Your task to perform on an android device: Open battery settings Image 0: 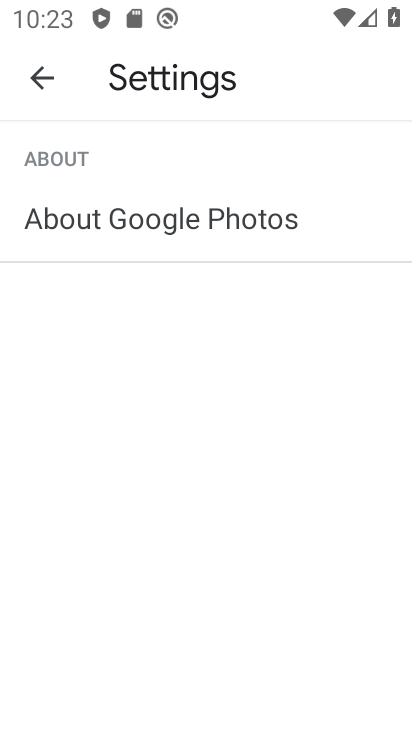
Step 0: press home button
Your task to perform on an android device: Open battery settings Image 1: 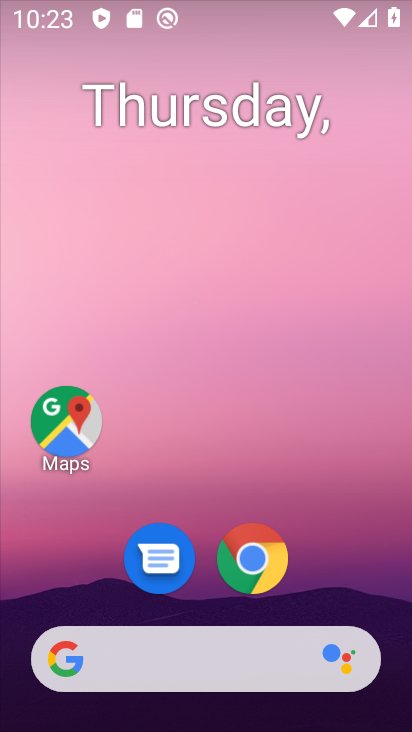
Step 1: drag from (328, 559) to (374, 102)
Your task to perform on an android device: Open battery settings Image 2: 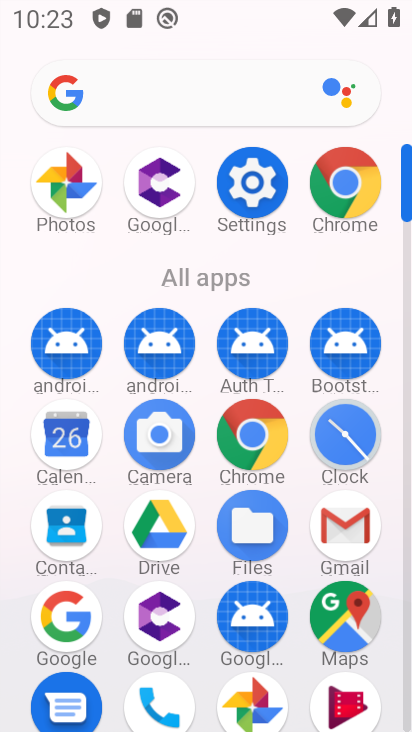
Step 2: click (258, 186)
Your task to perform on an android device: Open battery settings Image 3: 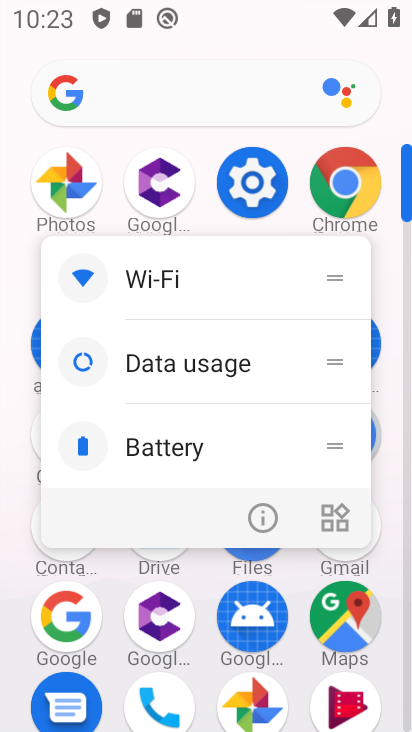
Step 3: click (250, 181)
Your task to perform on an android device: Open battery settings Image 4: 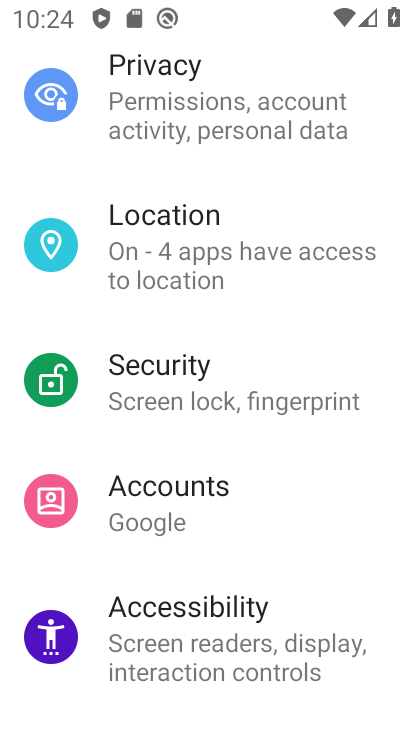
Step 4: drag from (182, 148) to (214, 571)
Your task to perform on an android device: Open battery settings Image 5: 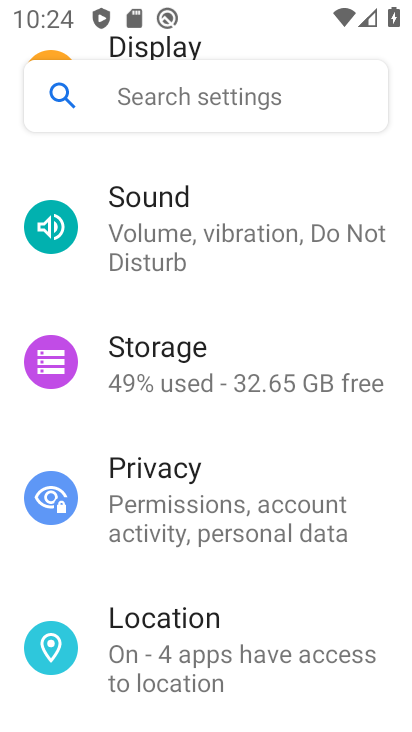
Step 5: drag from (223, 178) to (245, 505)
Your task to perform on an android device: Open battery settings Image 6: 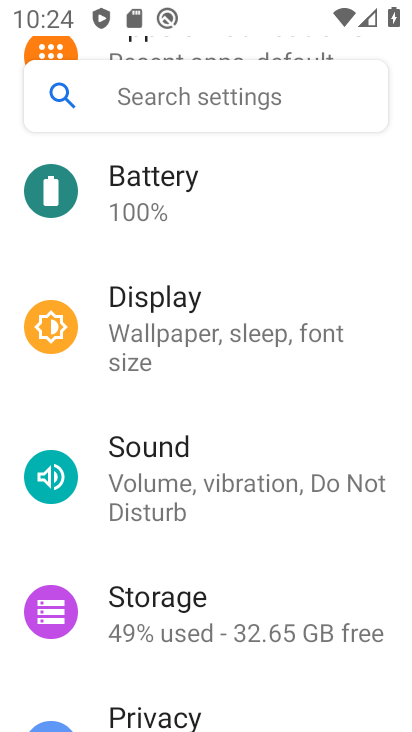
Step 6: click (163, 196)
Your task to perform on an android device: Open battery settings Image 7: 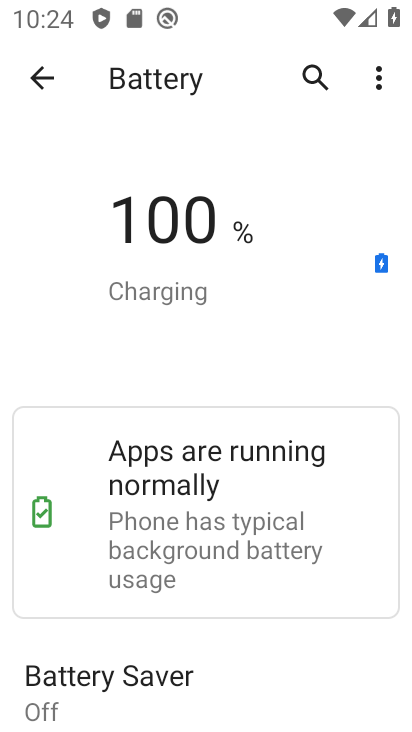
Step 7: task complete